Your task to perform on an android device: Show me the alarms in the clock app Image 0: 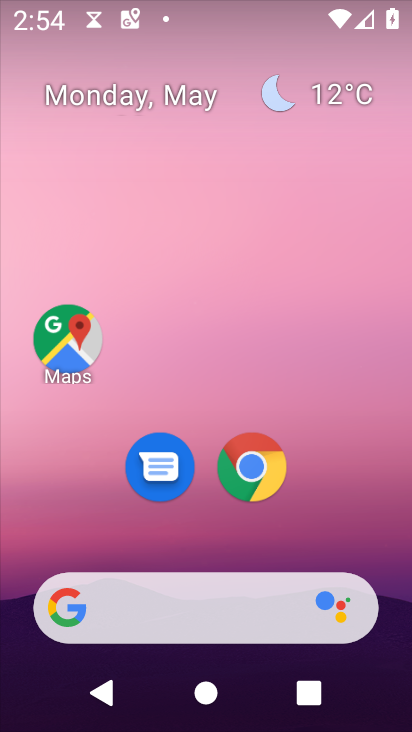
Step 0: drag from (397, 561) to (325, 197)
Your task to perform on an android device: Show me the alarms in the clock app Image 1: 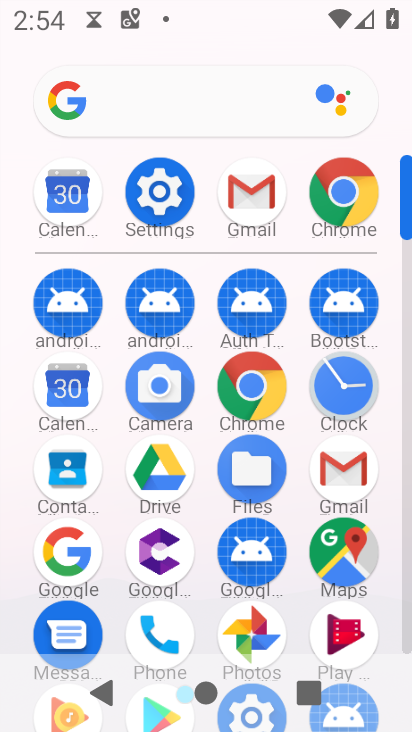
Step 1: click (342, 381)
Your task to perform on an android device: Show me the alarms in the clock app Image 2: 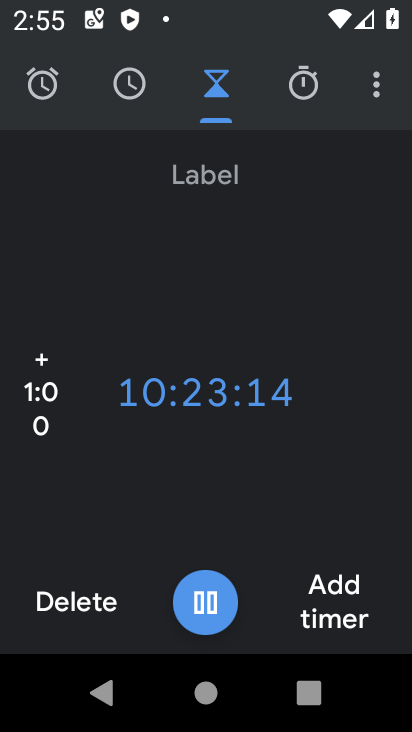
Step 2: click (51, 85)
Your task to perform on an android device: Show me the alarms in the clock app Image 3: 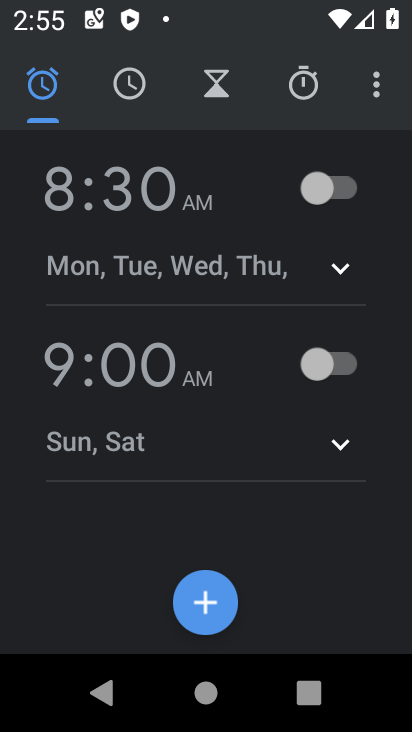
Step 3: task complete